Your task to perform on an android device: delete a single message in the gmail app Image 0: 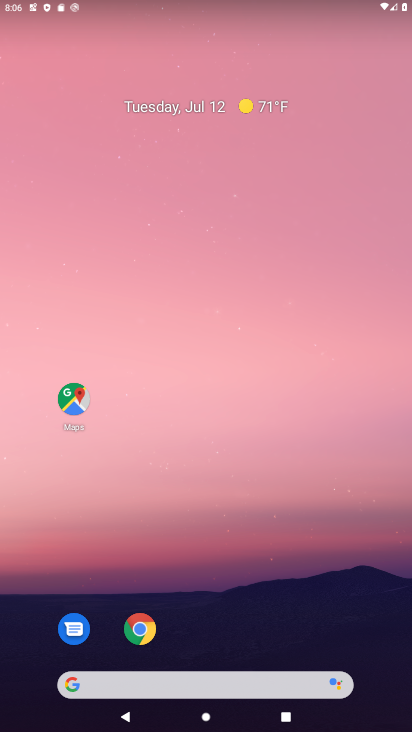
Step 0: drag from (385, 714) to (338, 214)
Your task to perform on an android device: delete a single message in the gmail app Image 1: 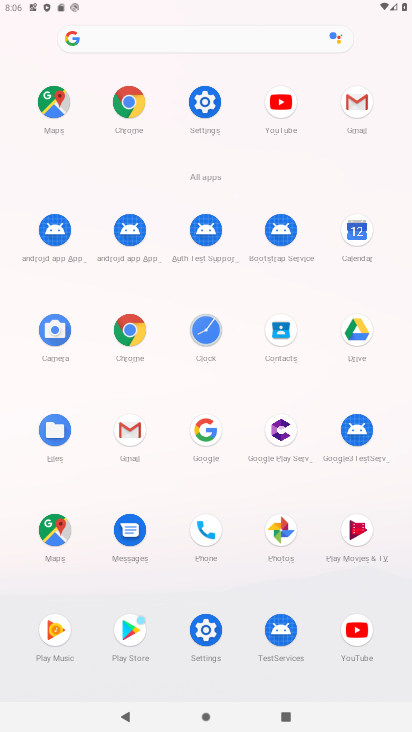
Step 1: click (127, 430)
Your task to perform on an android device: delete a single message in the gmail app Image 2: 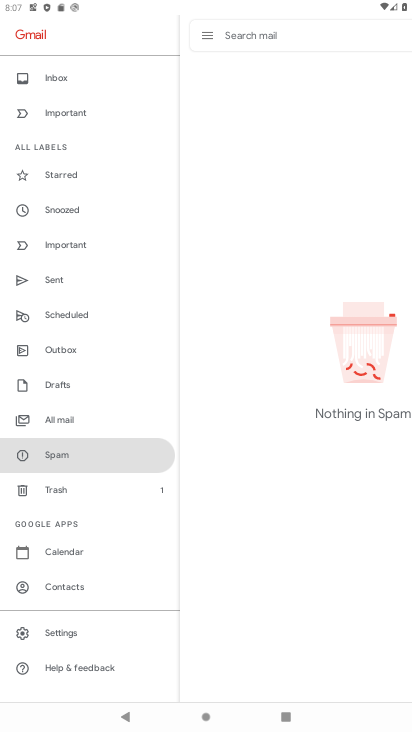
Step 2: task complete